Your task to perform on an android device: Open Maps and search for coffee Image 0: 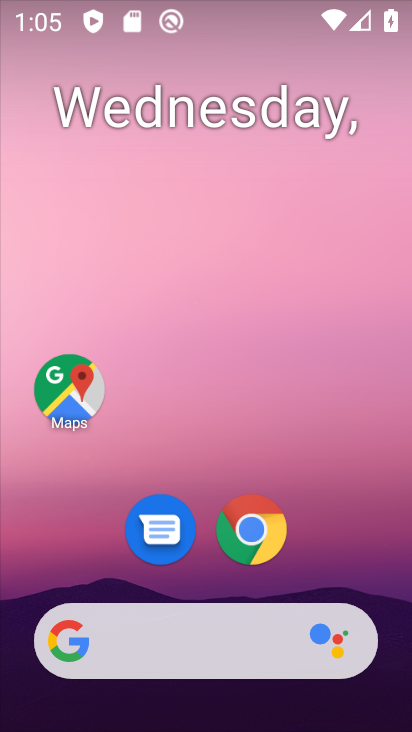
Step 0: click (83, 391)
Your task to perform on an android device: Open Maps and search for coffee Image 1: 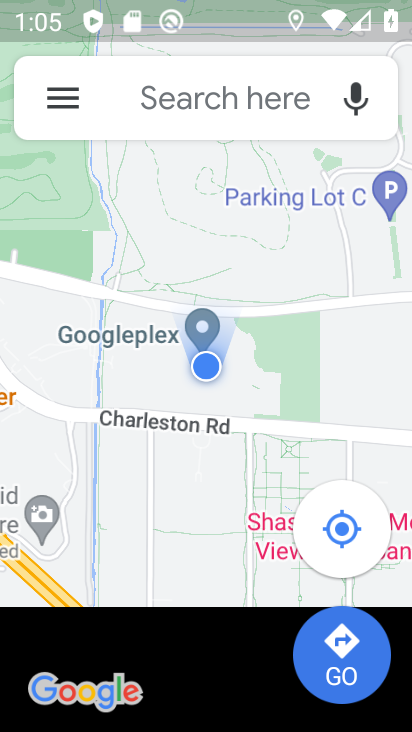
Step 1: click (238, 103)
Your task to perform on an android device: Open Maps and search for coffee Image 2: 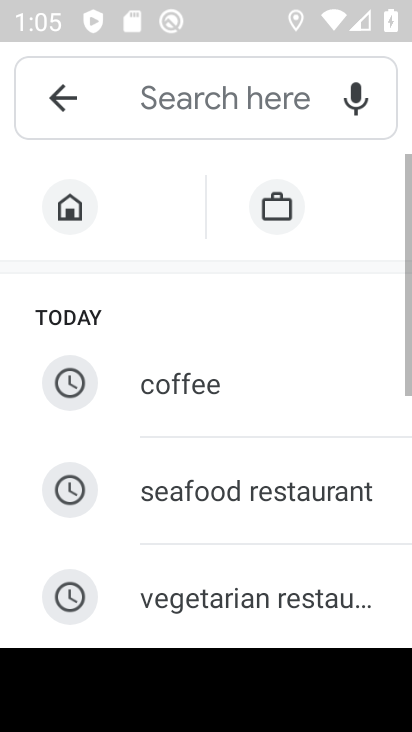
Step 2: click (178, 408)
Your task to perform on an android device: Open Maps and search for coffee Image 3: 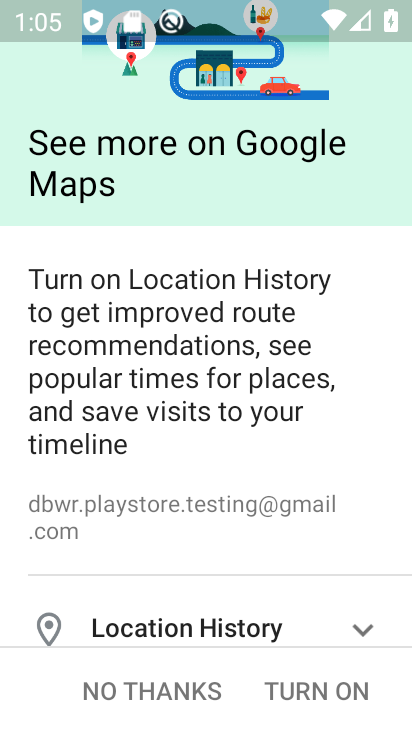
Step 3: task complete